Your task to perform on an android device: Open calendar and show me the third week of next month Image 0: 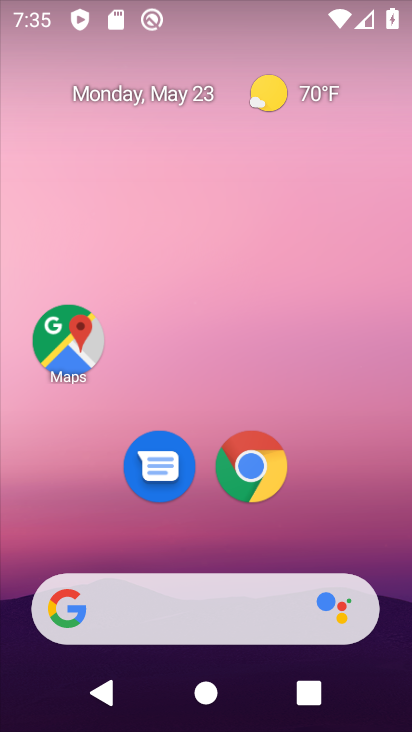
Step 0: drag from (271, 586) to (325, 108)
Your task to perform on an android device: Open calendar and show me the third week of next month Image 1: 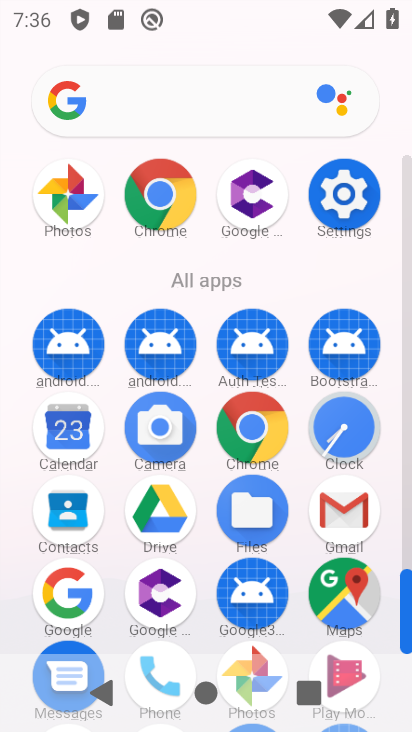
Step 1: click (74, 419)
Your task to perform on an android device: Open calendar and show me the third week of next month Image 2: 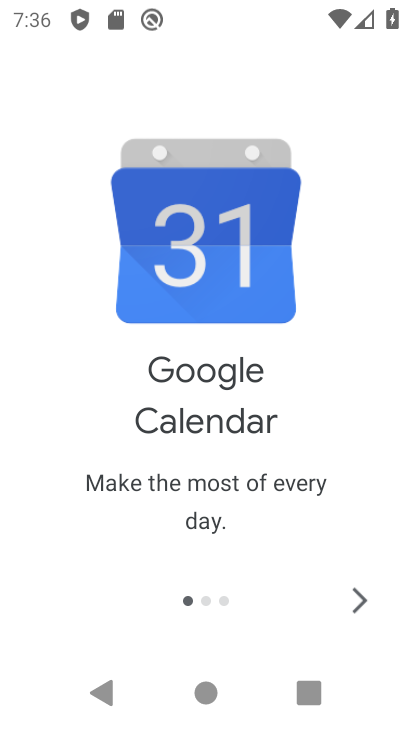
Step 2: click (365, 613)
Your task to perform on an android device: Open calendar and show me the third week of next month Image 3: 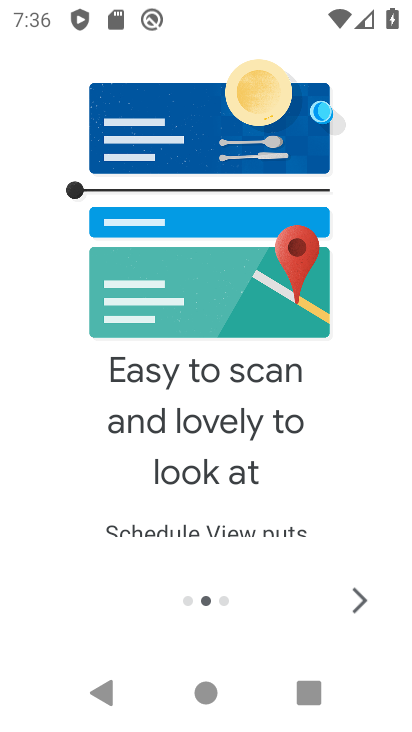
Step 3: click (360, 603)
Your task to perform on an android device: Open calendar and show me the third week of next month Image 4: 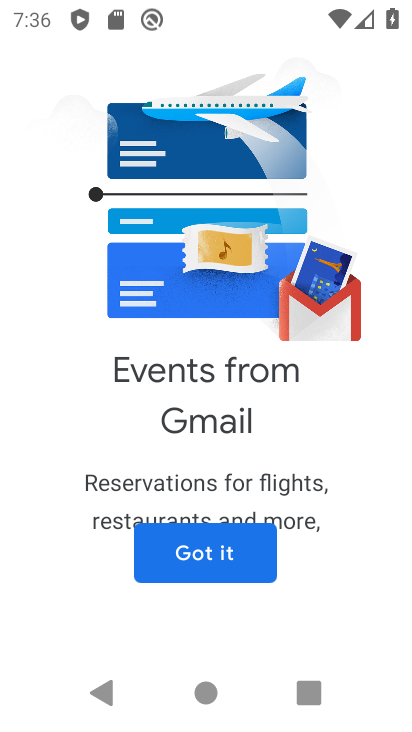
Step 4: click (254, 554)
Your task to perform on an android device: Open calendar and show me the third week of next month Image 5: 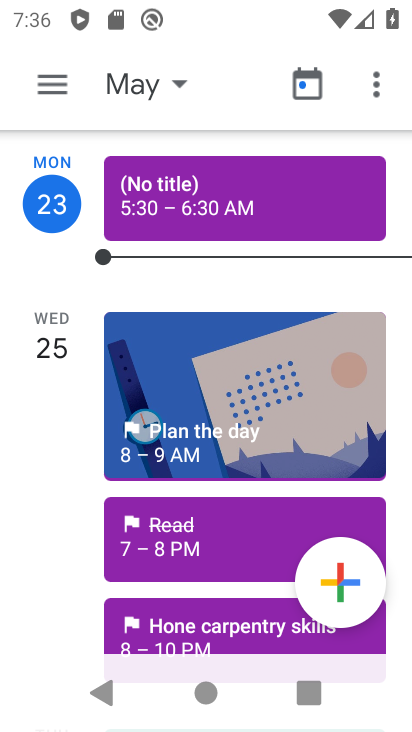
Step 5: click (172, 89)
Your task to perform on an android device: Open calendar and show me the third week of next month Image 6: 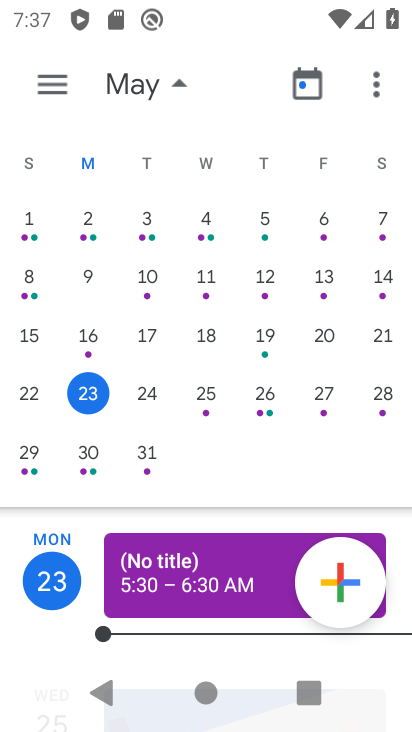
Step 6: drag from (358, 369) to (0, 516)
Your task to perform on an android device: Open calendar and show me the third week of next month Image 7: 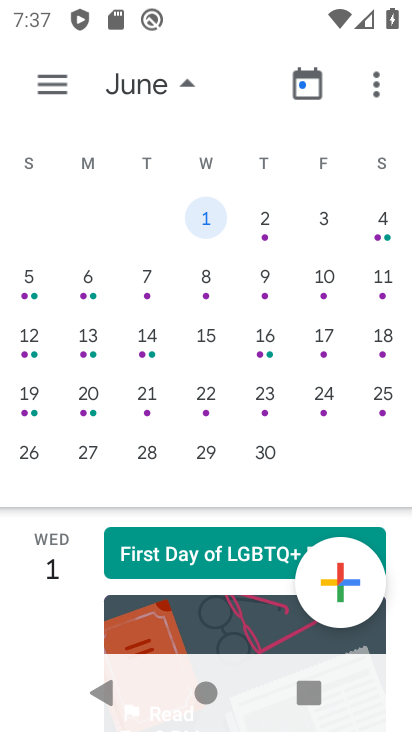
Step 7: click (40, 354)
Your task to perform on an android device: Open calendar and show me the third week of next month Image 8: 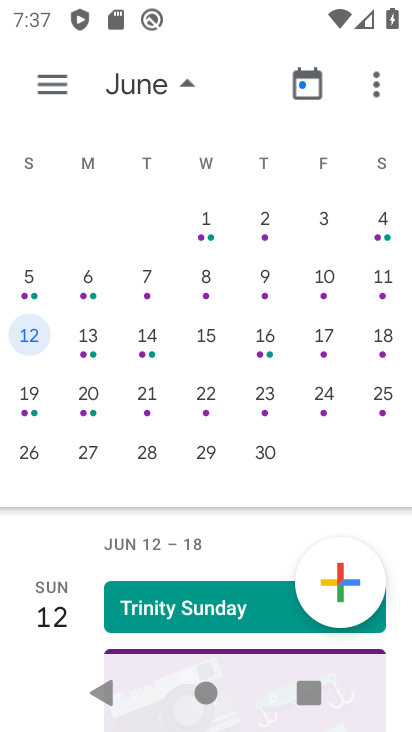
Step 8: task complete